Your task to perform on an android device: Show me popular games on the Play Store Image 0: 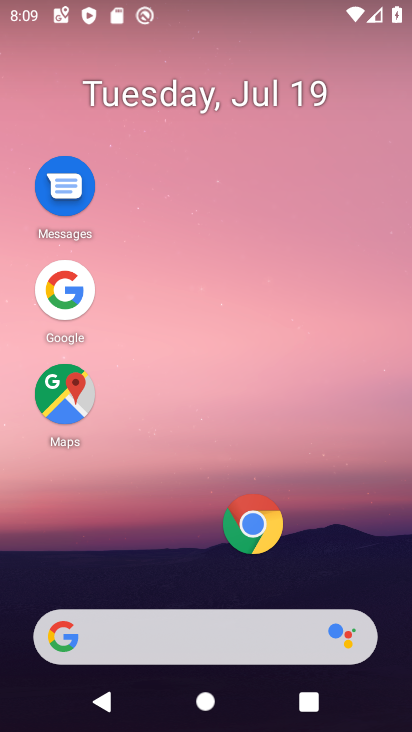
Step 0: drag from (218, 583) to (117, 14)
Your task to perform on an android device: Show me popular games on the Play Store Image 1: 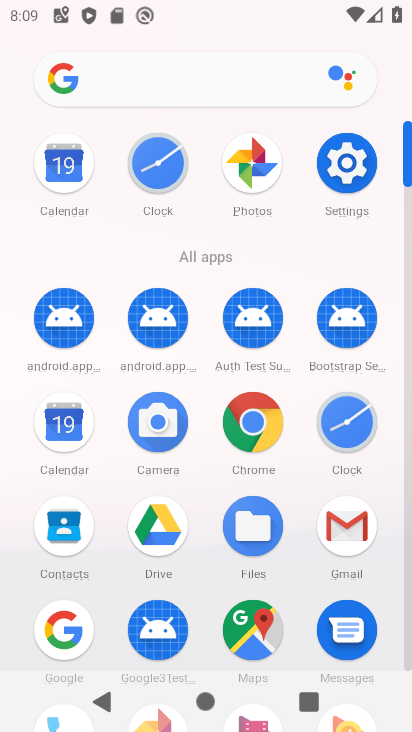
Step 1: drag from (207, 582) to (158, 3)
Your task to perform on an android device: Show me popular games on the Play Store Image 2: 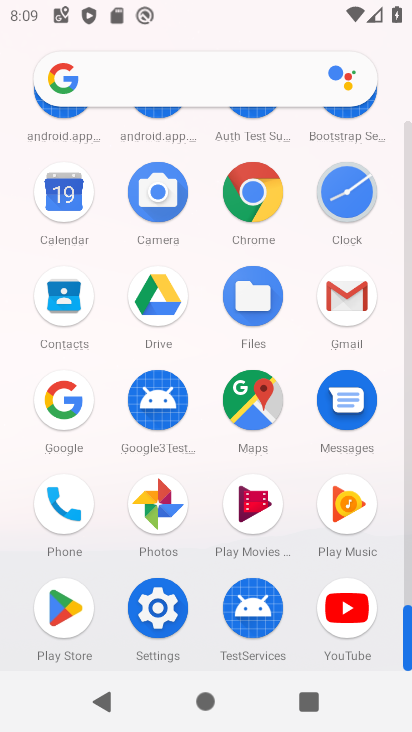
Step 2: click (66, 624)
Your task to perform on an android device: Show me popular games on the Play Store Image 3: 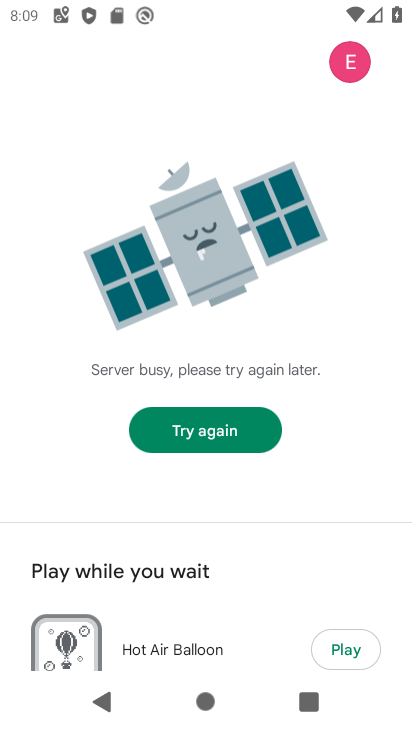
Step 3: click (221, 433)
Your task to perform on an android device: Show me popular games on the Play Store Image 4: 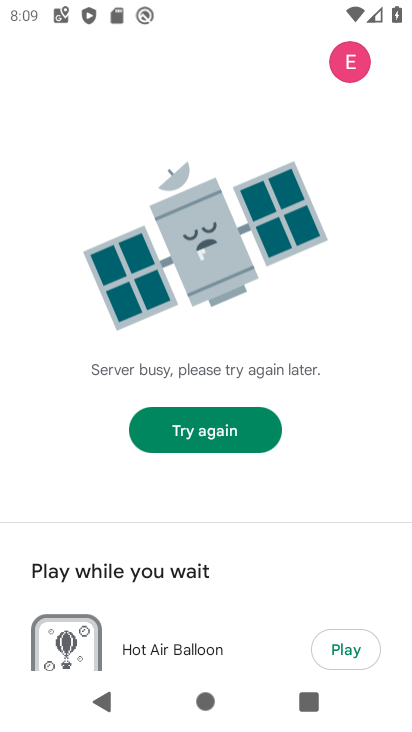
Step 4: task complete